Your task to perform on an android device: open wifi settings Image 0: 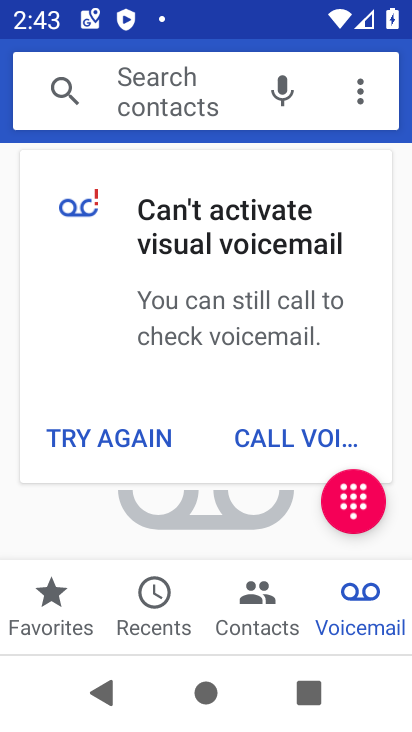
Step 0: drag from (273, 665) to (180, 113)
Your task to perform on an android device: open wifi settings Image 1: 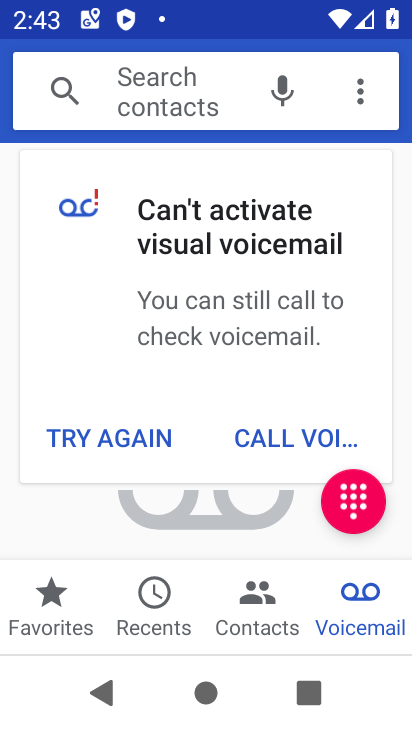
Step 1: press back button
Your task to perform on an android device: open wifi settings Image 2: 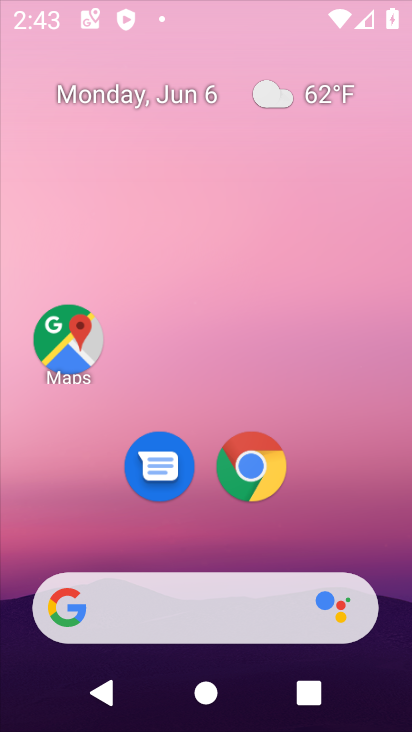
Step 2: press home button
Your task to perform on an android device: open wifi settings Image 3: 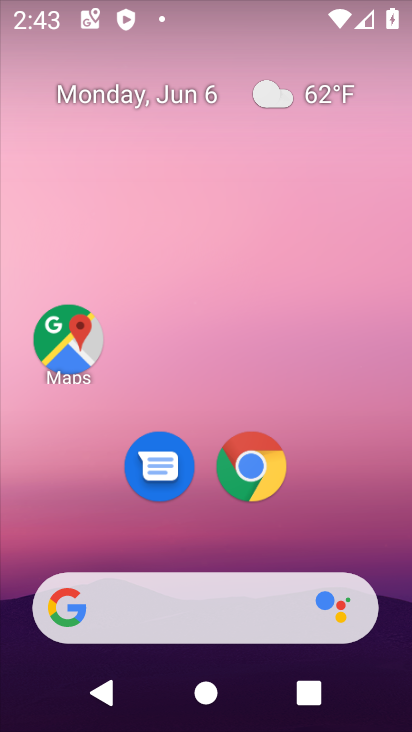
Step 3: drag from (244, 693) to (137, 26)
Your task to perform on an android device: open wifi settings Image 4: 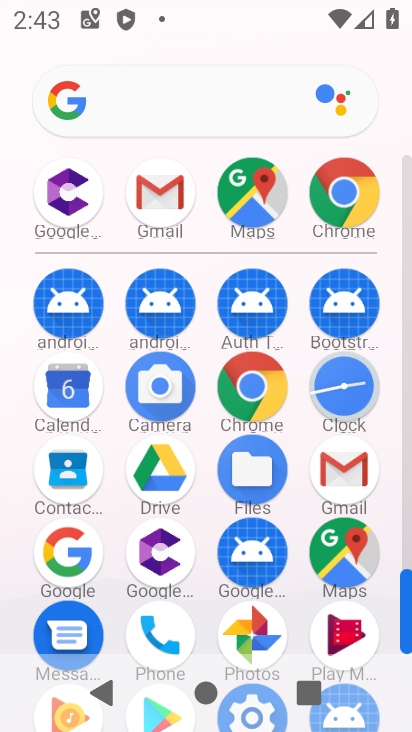
Step 4: drag from (281, 488) to (263, 244)
Your task to perform on an android device: open wifi settings Image 5: 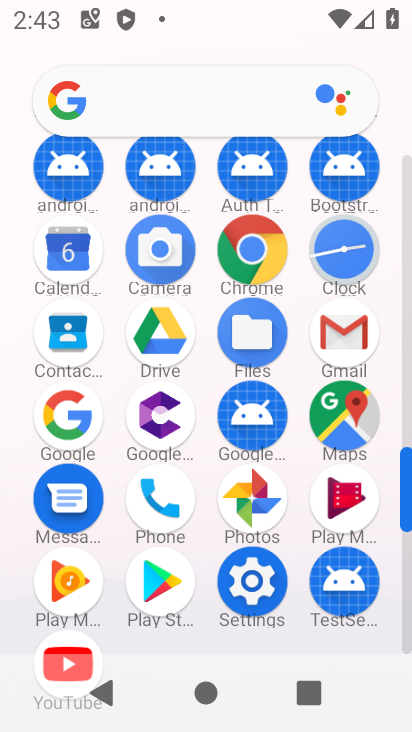
Step 5: drag from (268, 548) to (268, 214)
Your task to perform on an android device: open wifi settings Image 6: 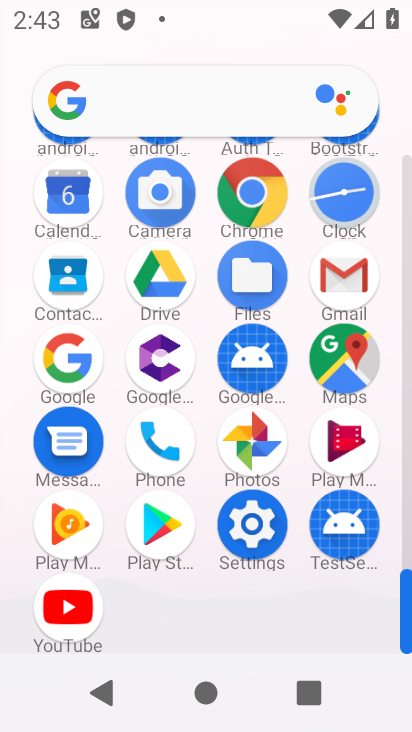
Step 6: click (234, 520)
Your task to perform on an android device: open wifi settings Image 7: 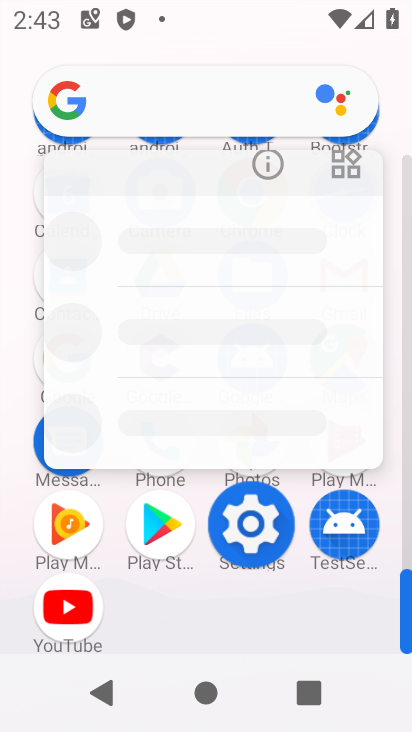
Step 7: click (235, 522)
Your task to perform on an android device: open wifi settings Image 8: 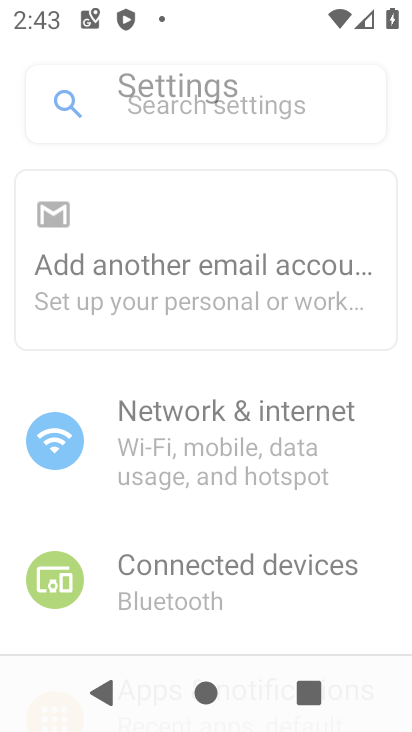
Step 8: click (236, 515)
Your task to perform on an android device: open wifi settings Image 9: 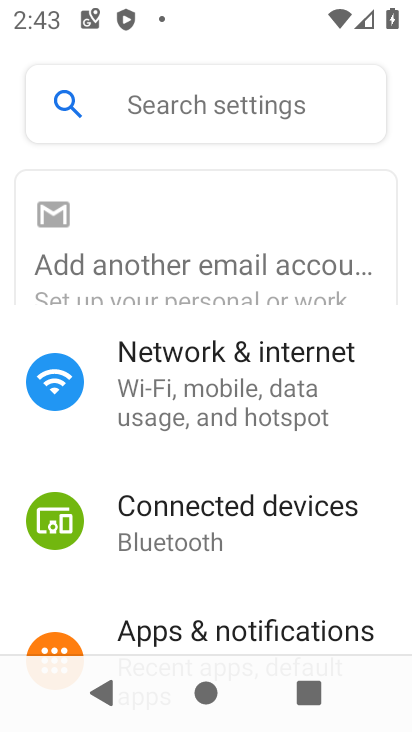
Step 9: click (236, 516)
Your task to perform on an android device: open wifi settings Image 10: 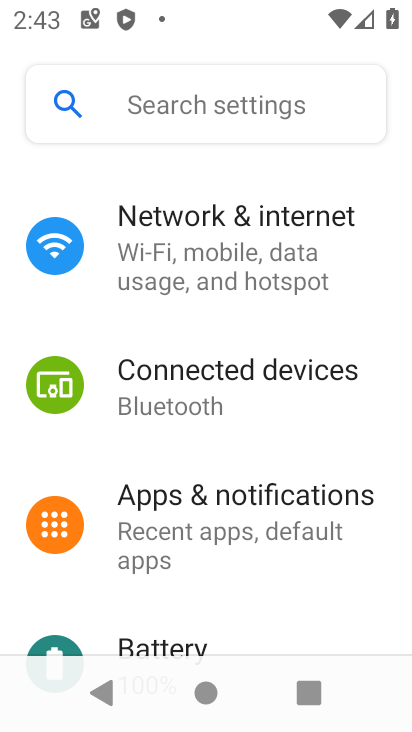
Step 10: click (281, 255)
Your task to perform on an android device: open wifi settings Image 11: 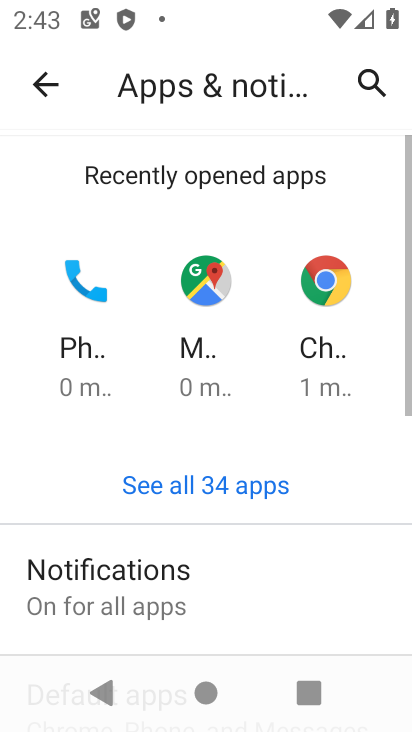
Step 11: drag from (240, 540) to (187, 125)
Your task to perform on an android device: open wifi settings Image 12: 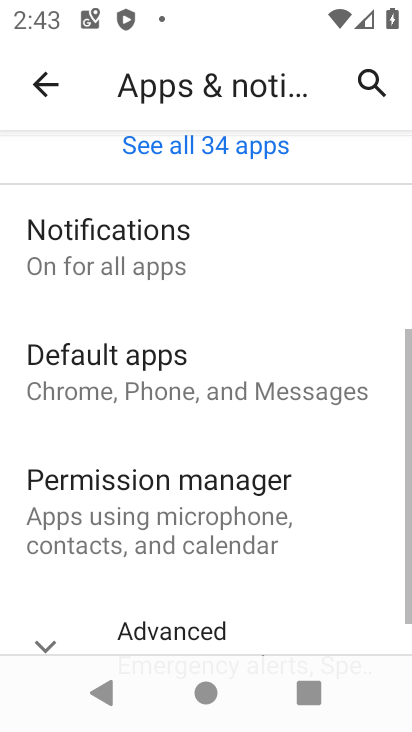
Step 12: drag from (187, 490) to (210, 110)
Your task to perform on an android device: open wifi settings Image 13: 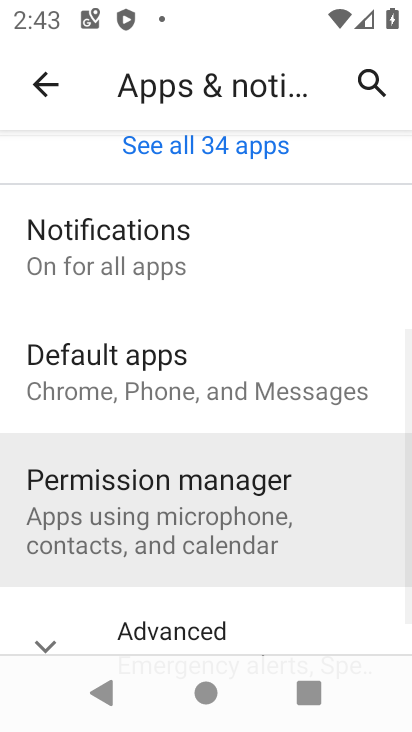
Step 13: drag from (204, 327) to (204, 106)
Your task to perform on an android device: open wifi settings Image 14: 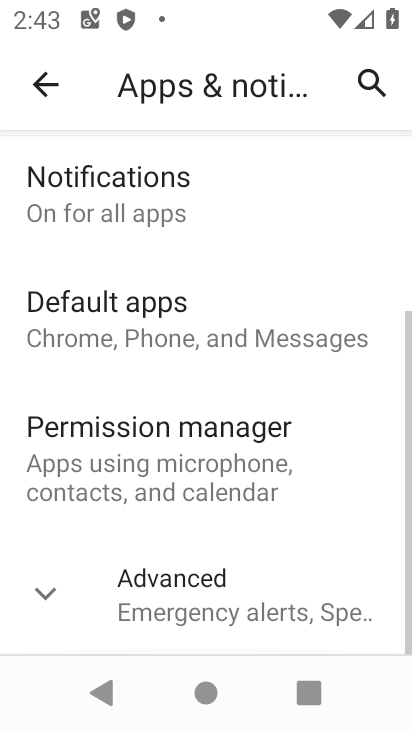
Step 14: drag from (195, 569) to (209, 623)
Your task to perform on an android device: open wifi settings Image 15: 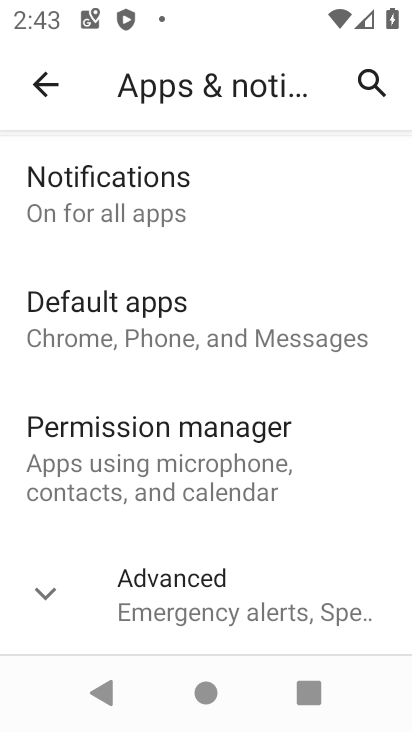
Step 15: click (44, 90)
Your task to perform on an android device: open wifi settings Image 16: 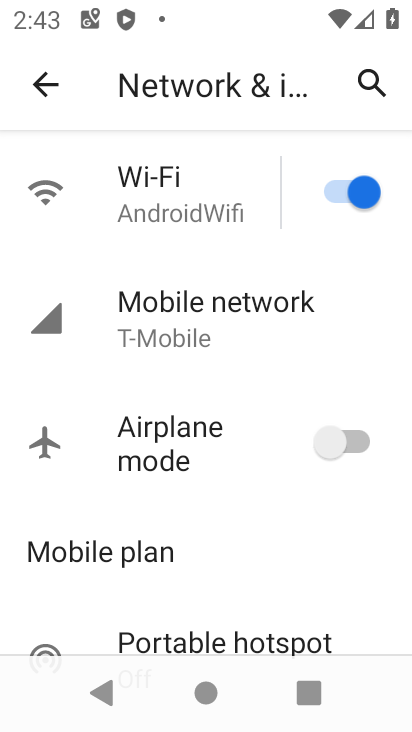
Step 16: task complete